Your task to perform on an android device: uninstall "Adobe Express: Graphic Design" Image 0: 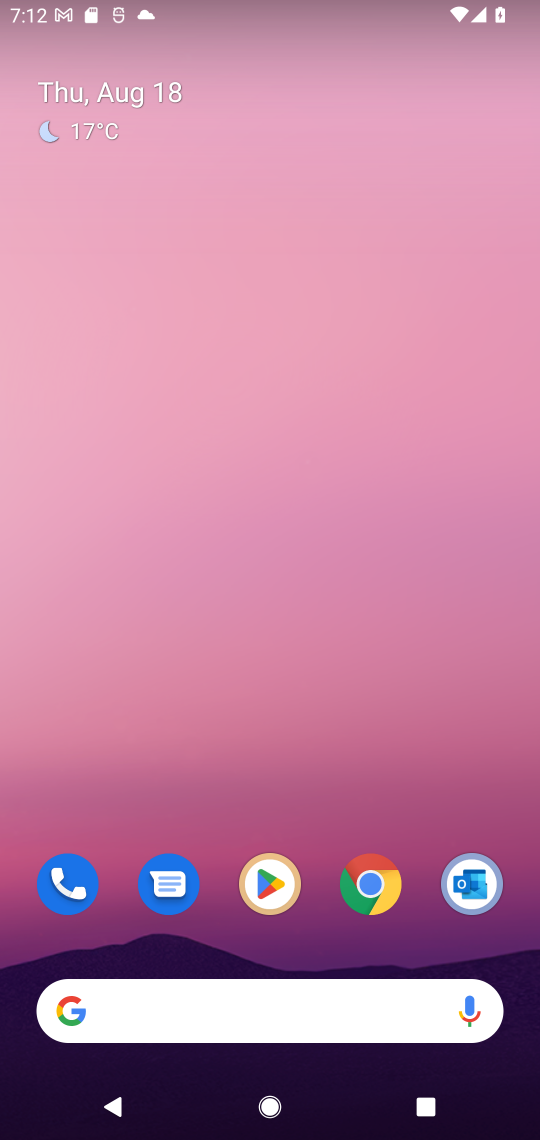
Step 0: drag from (340, 1021) to (414, 434)
Your task to perform on an android device: uninstall "Adobe Express: Graphic Design" Image 1: 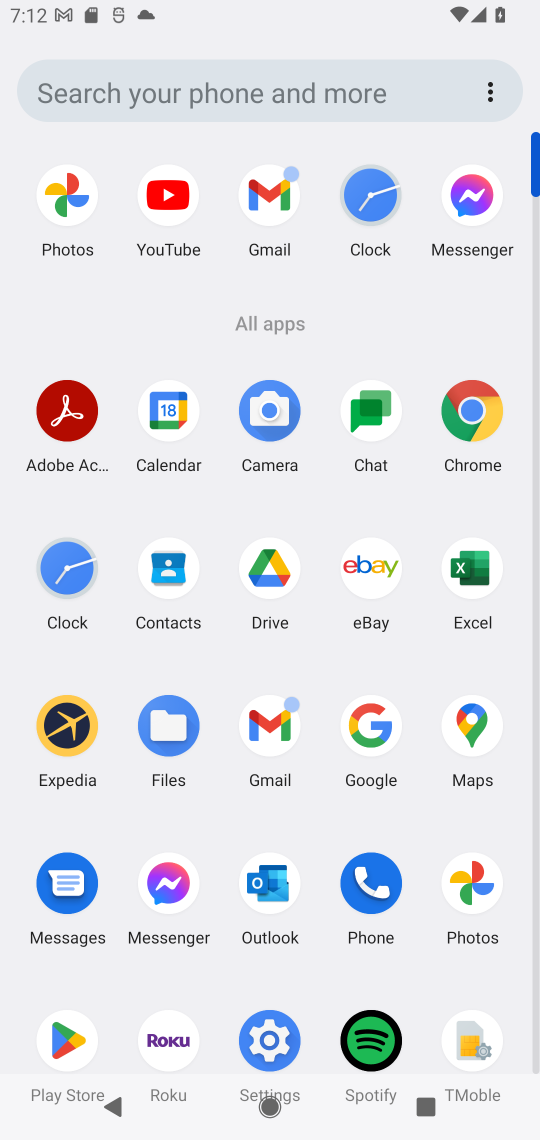
Step 1: click (69, 1043)
Your task to perform on an android device: uninstall "Adobe Express: Graphic Design" Image 2: 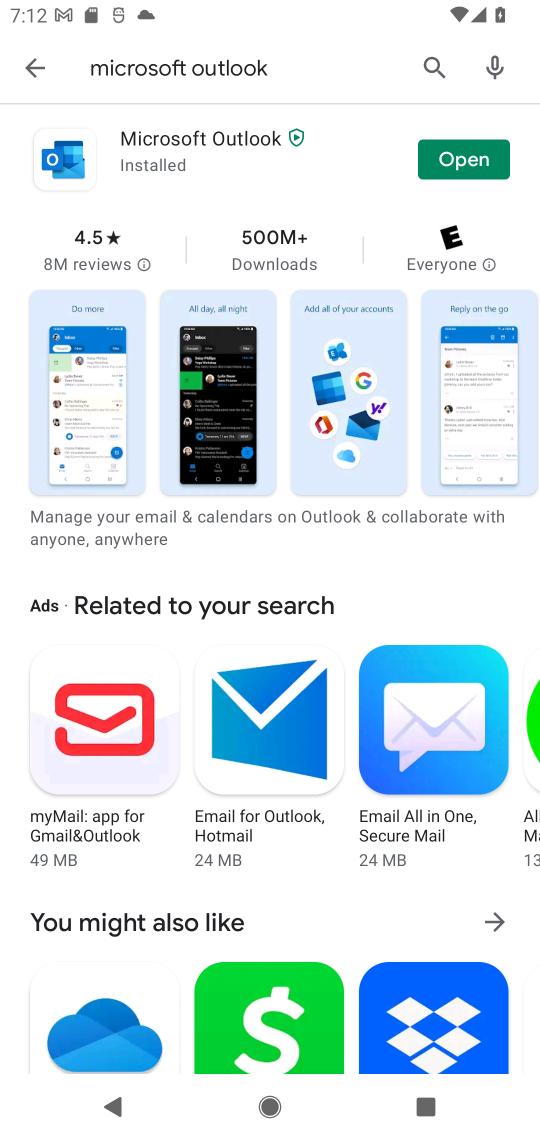
Step 2: press back button
Your task to perform on an android device: uninstall "Adobe Express: Graphic Design" Image 3: 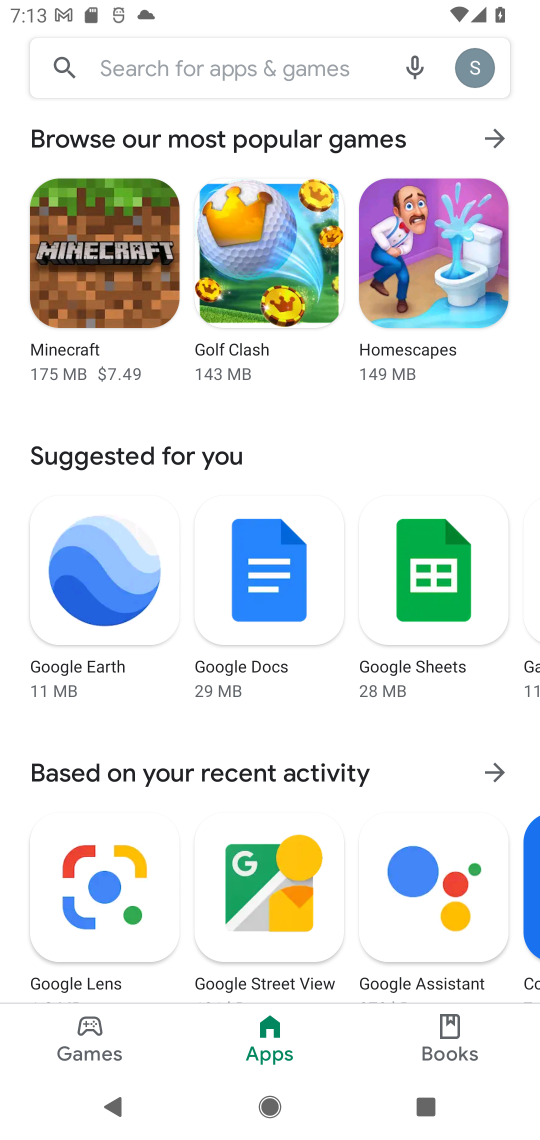
Step 3: click (321, 55)
Your task to perform on an android device: uninstall "Adobe Express: Graphic Design" Image 4: 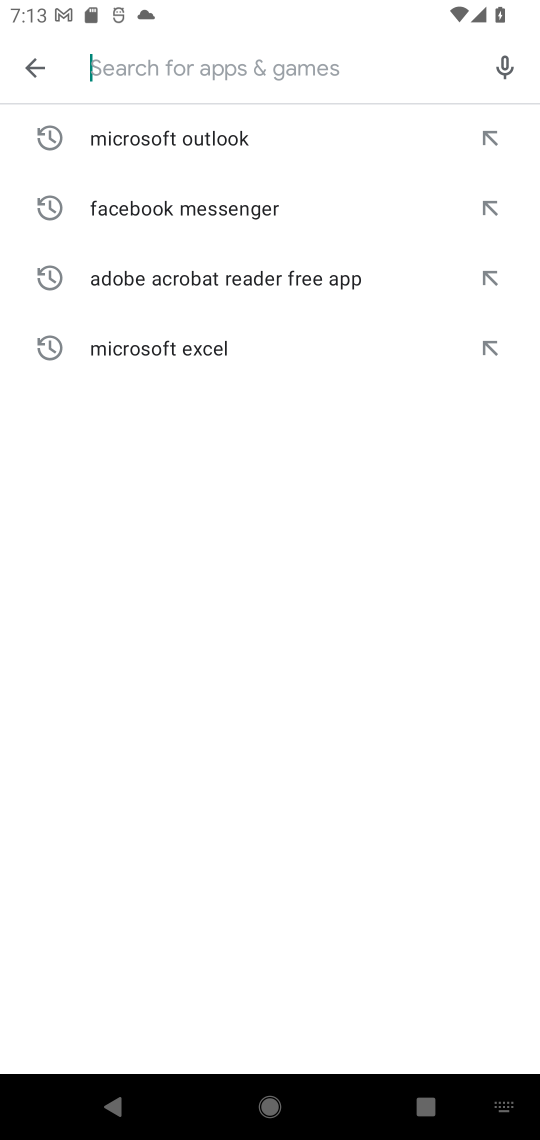
Step 4: type "Adobe Express: Graphic Design"
Your task to perform on an android device: uninstall "Adobe Express: Graphic Design" Image 5: 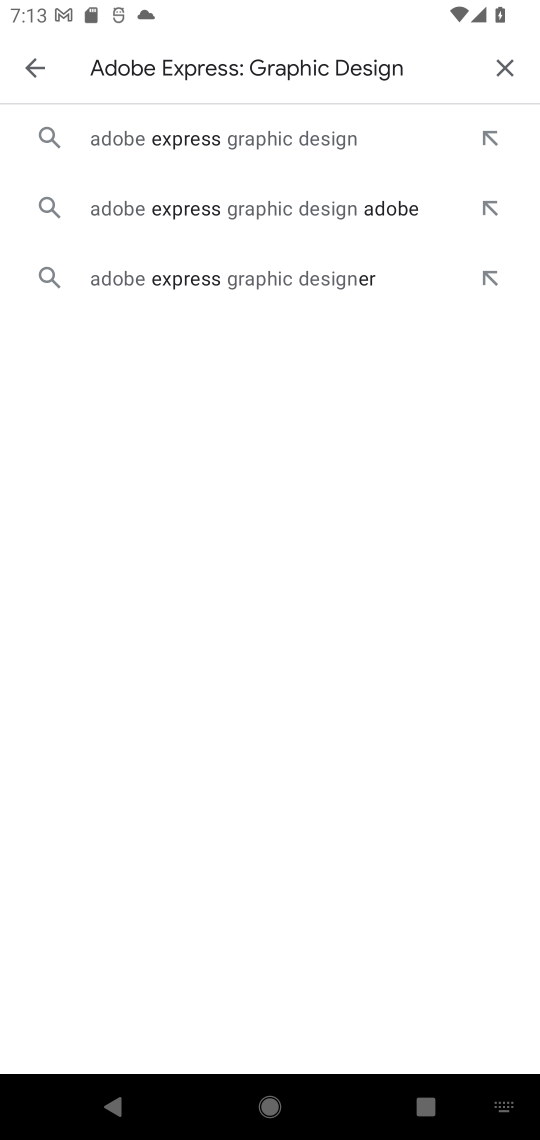
Step 5: click (291, 147)
Your task to perform on an android device: uninstall "Adobe Express: Graphic Design" Image 6: 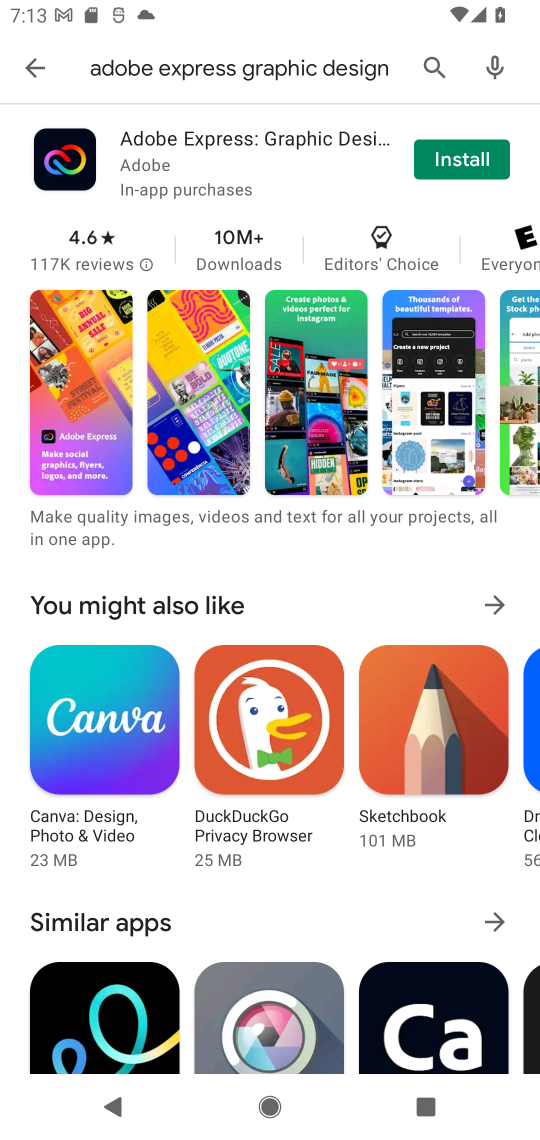
Step 6: task complete